Your task to perform on an android device: Search for pizza restaurants on Maps Image 0: 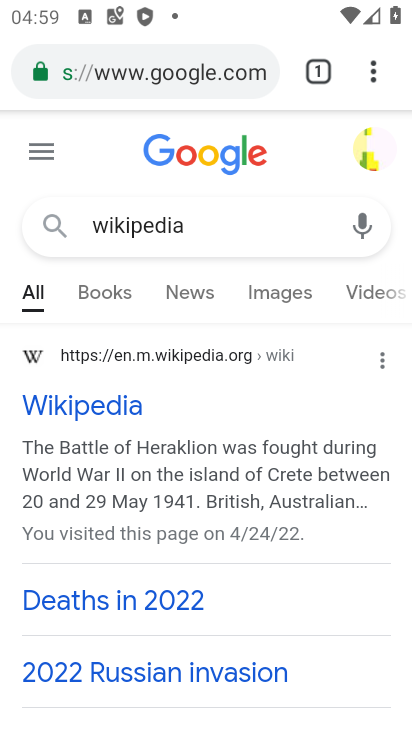
Step 0: press home button
Your task to perform on an android device: Search for pizza restaurants on Maps Image 1: 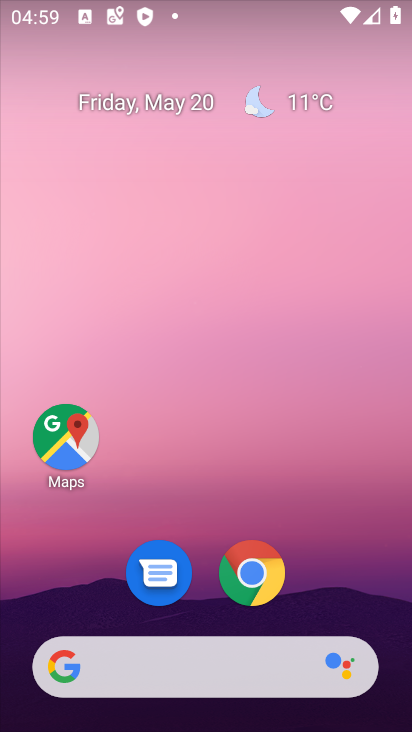
Step 1: click (66, 441)
Your task to perform on an android device: Search for pizza restaurants on Maps Image 2: 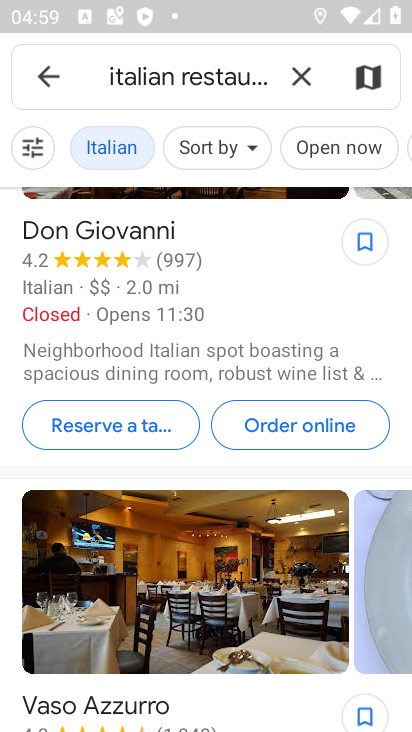
Step 2: click (298, 72)
Your task to perform on an android device: Search for pizza restaurants on Maps Image 3: 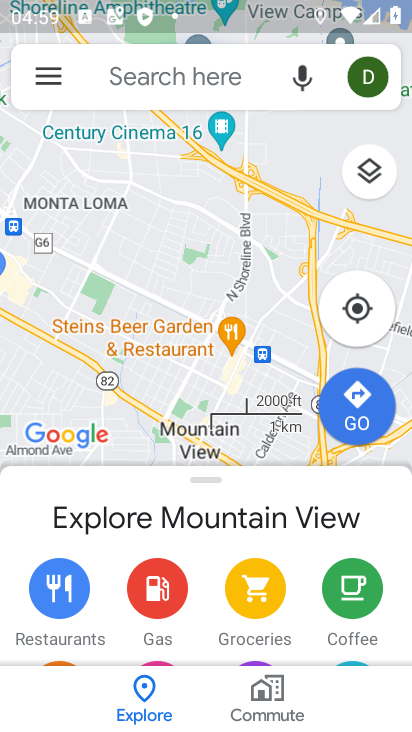
Step 3: click (202, 74)
Your task to perform on an android device: Search for pizza restaurants on Maps Image 4: 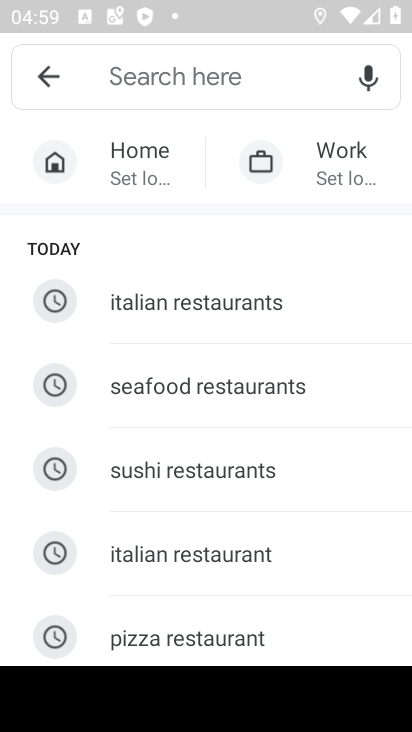
Step 4: type "pizza restaurants"
Your task to perform on an android device: Search for pizza restaurants on Maps Image 5: 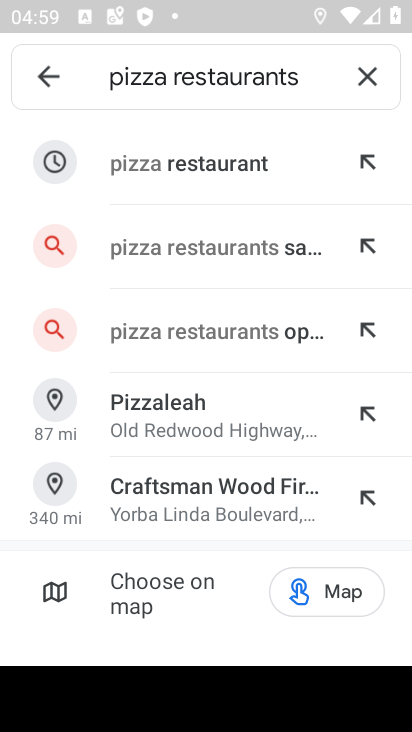
Step 5: click (164, 179)
Your task to perform on an android device: Search for pizza restaurants on Maps Image 6: 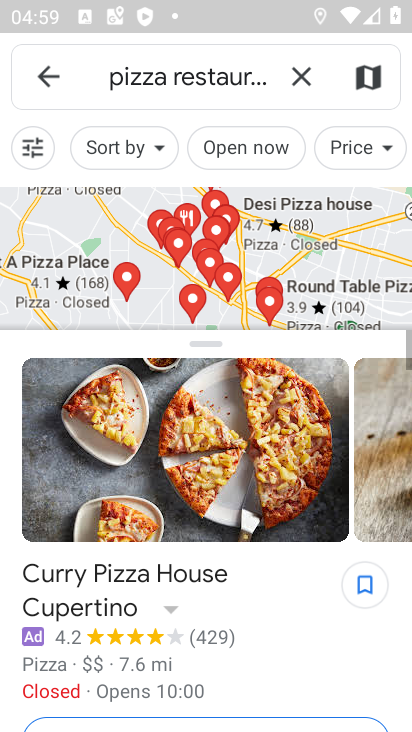
Step 6: task complete